Your task to perform on an android device: Do I have any events today? Image 0: 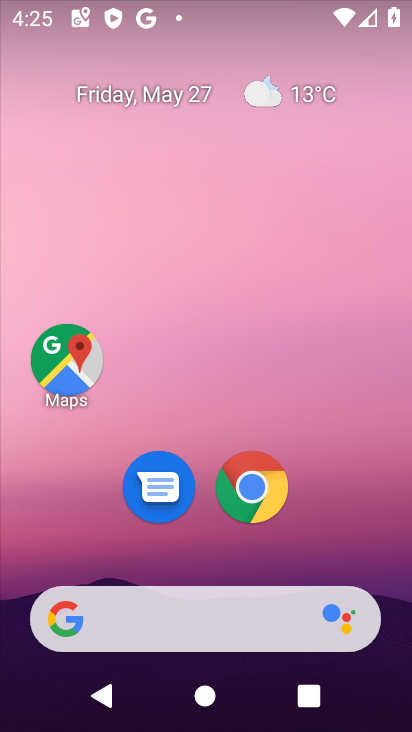
Step 0: drag from (336, 485) to (357, 83)
Your task to perform on an android device: Do I have any events today? Image 1: 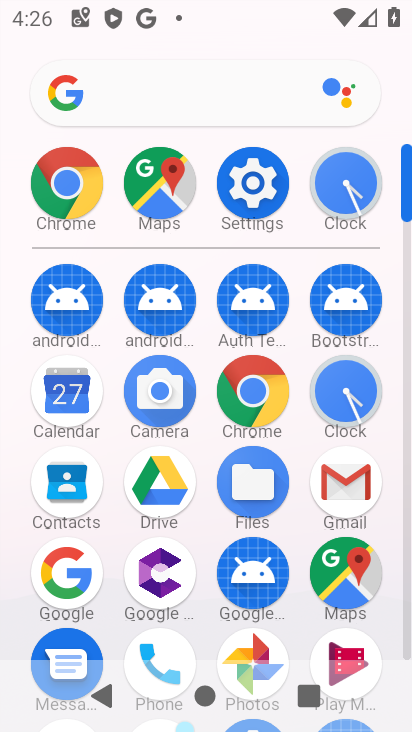
Step 1: click (70, 390)
Your task to perform on an android device: Do I have any events today? Image 2: 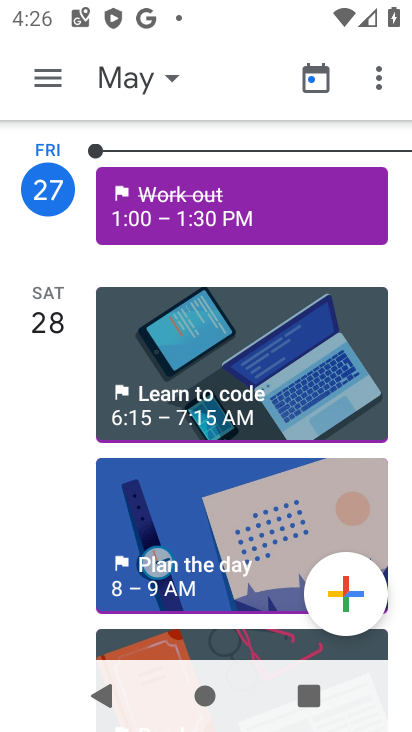
Step 2: task complete